Your task to perform on an android device: Open privacy settings Image 0: 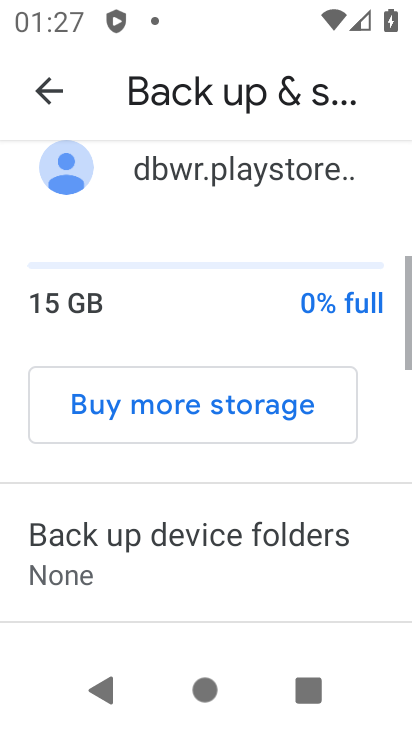
Step 0: click (275, 443)
Your task to perform on an android device: Open privacy settings Image 1: 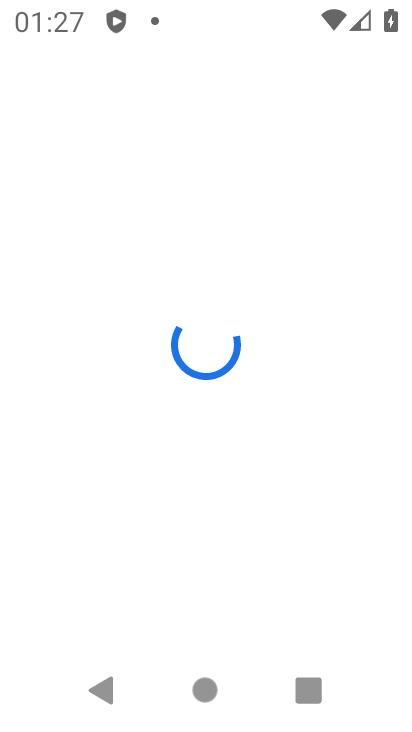
Step 1: press home button
Your task to perform on an android device: Open privacy settings Image 2: 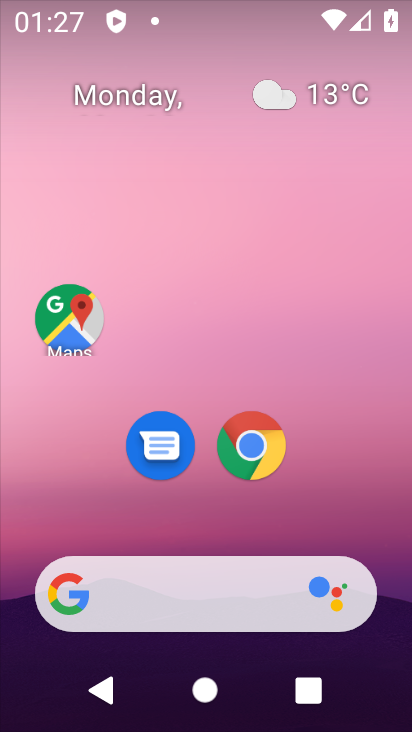
Step 2: drag from (283, 479) to (285, 26)
Your task to perform on an android device: Open privacy settings Image 3: 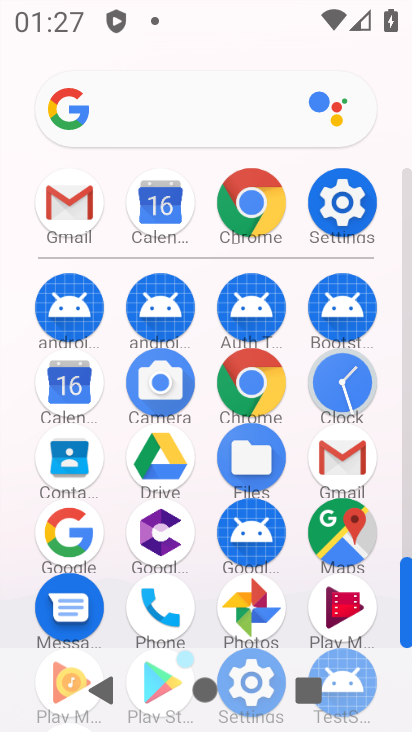
Step 3: click (324, 214)
Your task to perform on an android device: Open privacy settings Image 4: 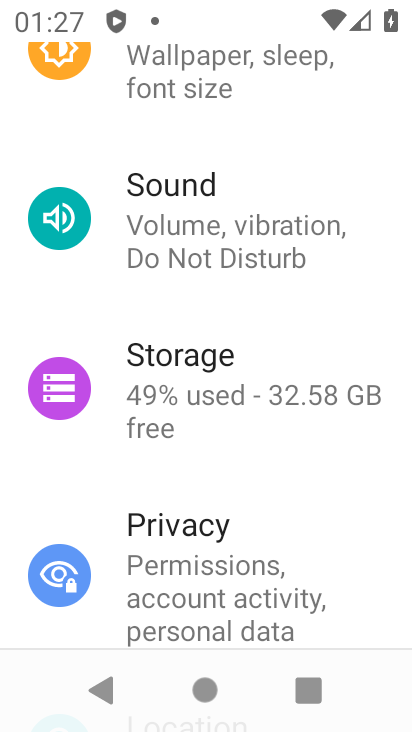
Step 4: click (210, 596)
Your task to perform on an android device: Open privacy settings Image 5: 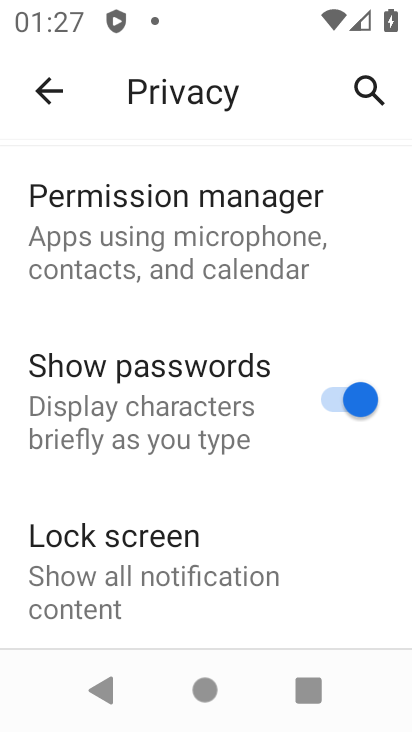
Step 5: task complete